Your task to perform on an android device: Search for seafood restaurants on Google Maps Image 0: 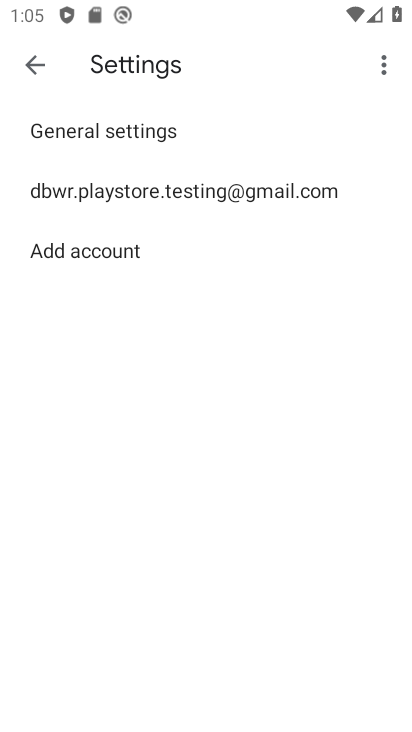
Step 0: press home button
Your task to perform on an android device: Search for seafood restaurants on Google Maps Image 1: 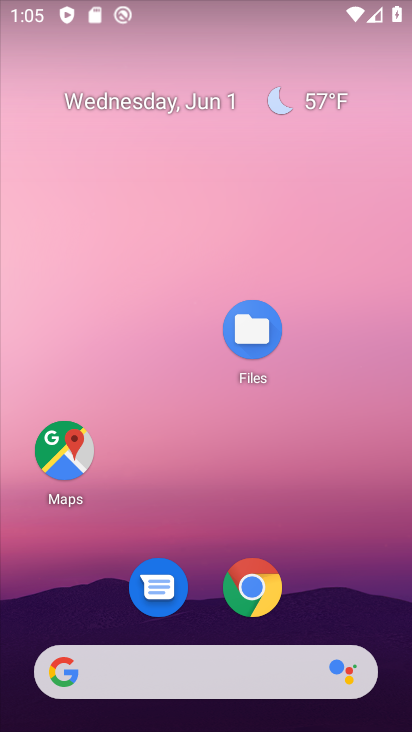
Step 1: click (80, 448)
Your task to perform on an android device: Search for seafood restaurants on Google Maps Image 2: 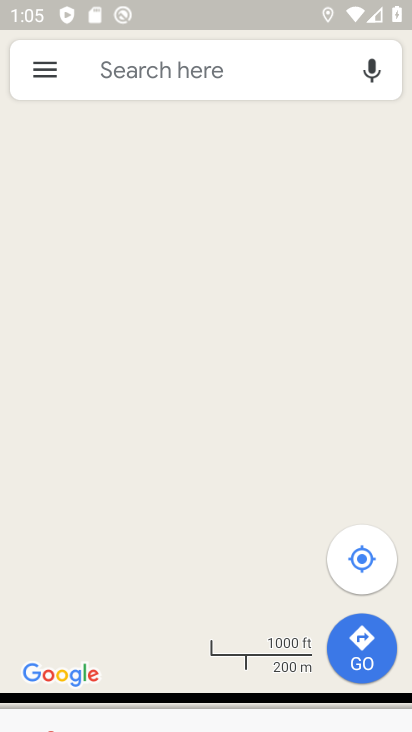
Step 2: click (185, 64)
Your task to perform on an android device: Search for seafood restaurants on Google Maps Image 3: 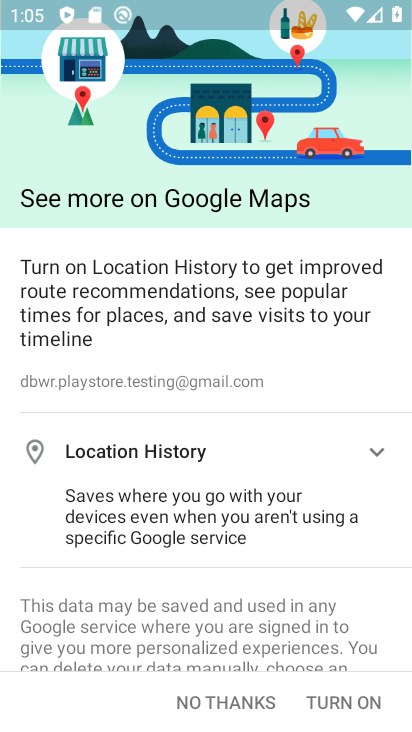
Step 3: type " seafood restaurants "
Your task to perform on an android device: Search for seafood restaurants on Google Maps Image 4: 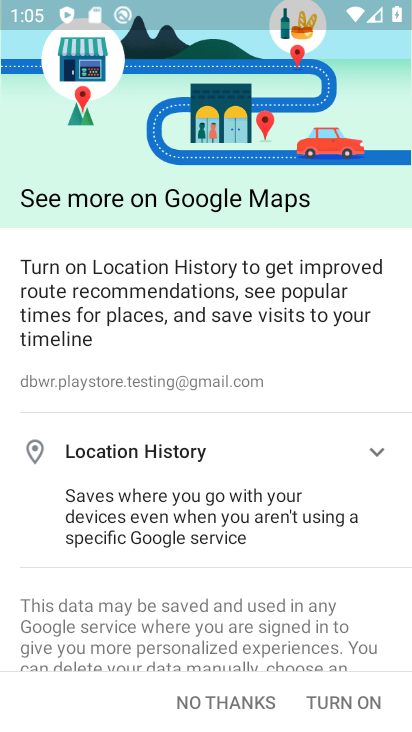
Step 4: click (214, 713)
Your task to perform on an android device: Search for seafood restaurants on Google Maps Image 5: 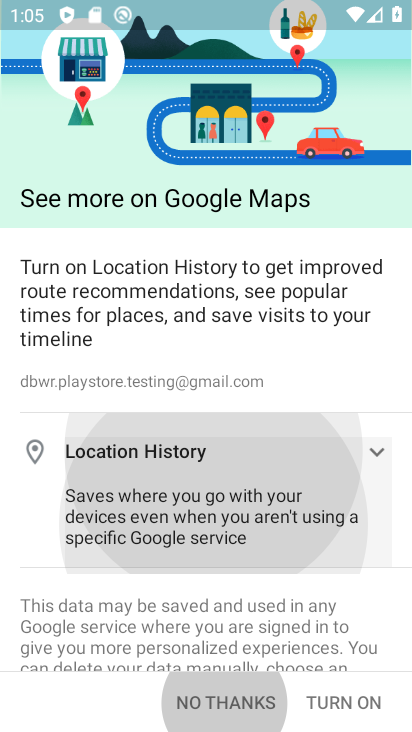
Step 5: click (214, 713)
Your task to perform on an android device: Search for seafood restaurants on Google Maps Image 6: 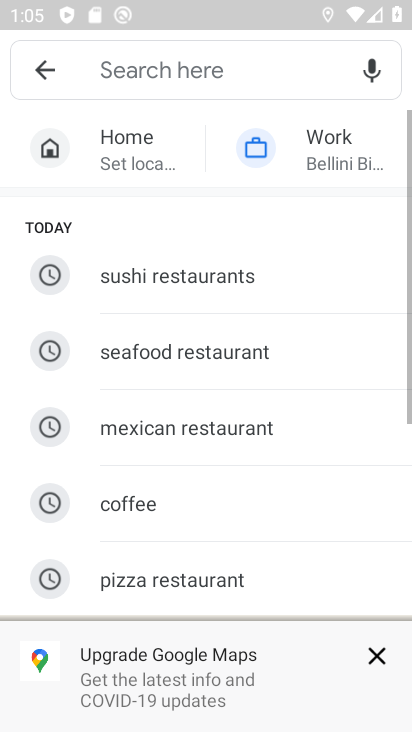
Step 6: click (133, 74)
Your task to perform on an android device: Search for seafood restaurants on Google Maps Image 7: 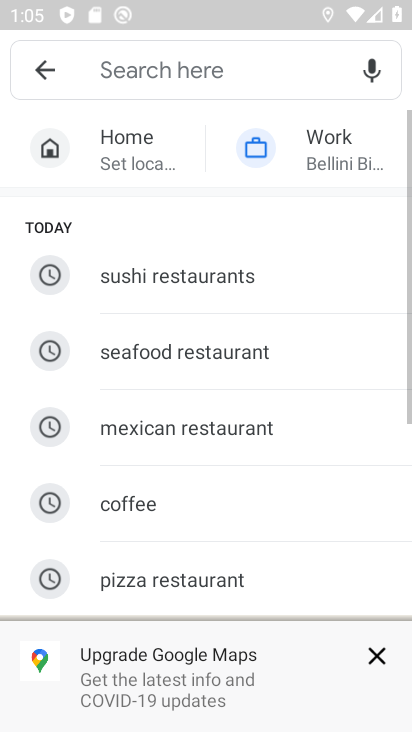
Step 7: click (133, 74)
Your task to perform on an android device: Search for seafood restaurants on Google Maps Image 8: 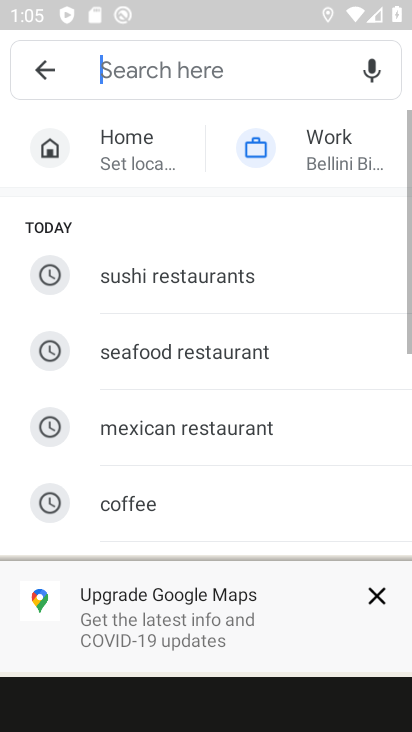
Step 8: click (133, 74)
Your task to perform on an android device: Search for seafood restaurants on Google Maps Image 9: 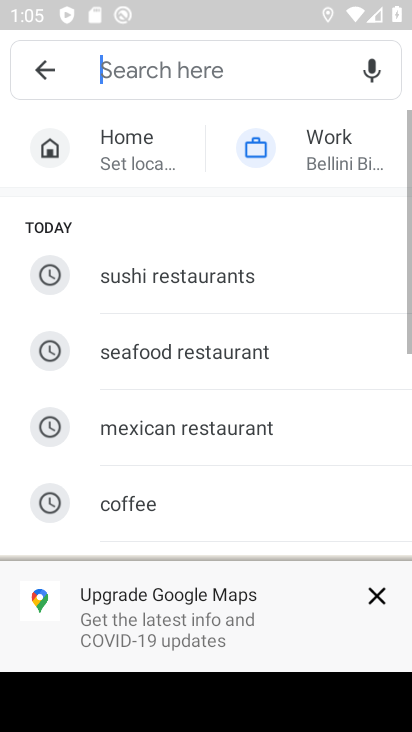
Step 9: click (133, 74)
Your task to perform on an android device: Search for seafood restaurants on Google Maps Image 10: 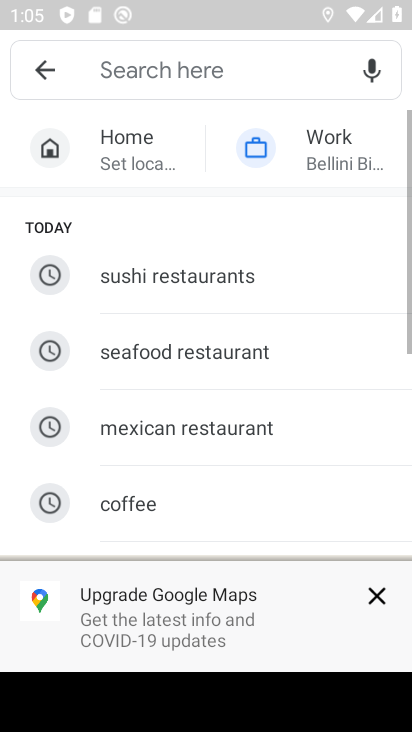
Step 10: click (133, 74)
Your task to perform on an android device: Search for seafood restaurants on Google Maps Image 11: 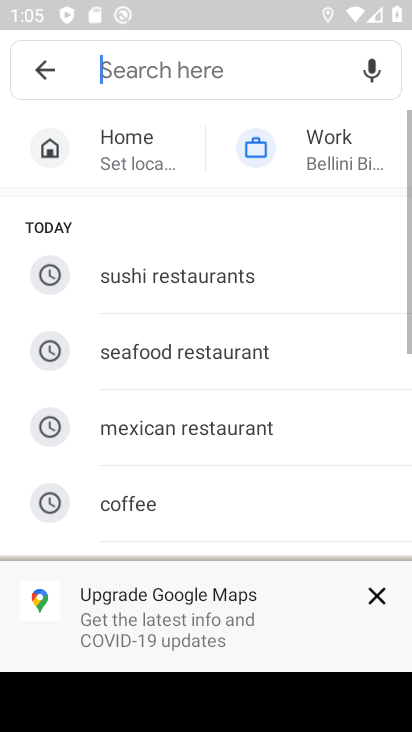
Step 11: click (133, 74)
Your task to perform on an android device: Search for seafood restaurants on Google Maps Image 12: 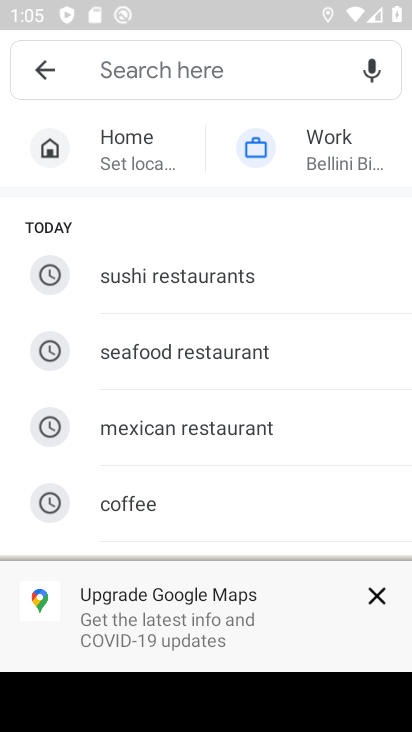
Step 12: type " seafood restaurants "
Your task to perform on an android device: Search for seafood restaurants on Google Maps Image 13: 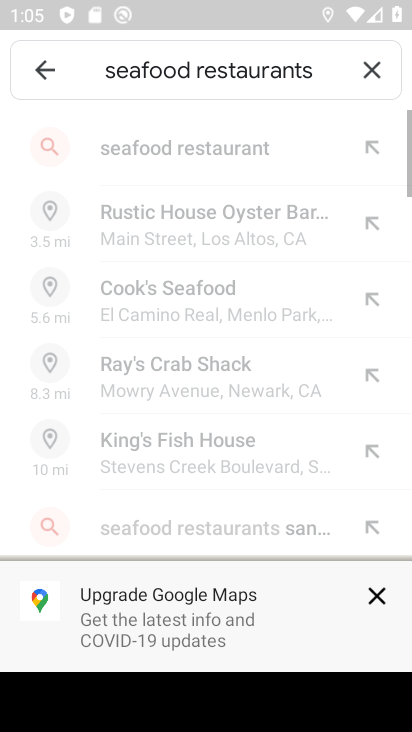
Step 13: click (298, 155)
Your task to perform on an android device: Search for seafood restaurants on Google Maps Image 14: 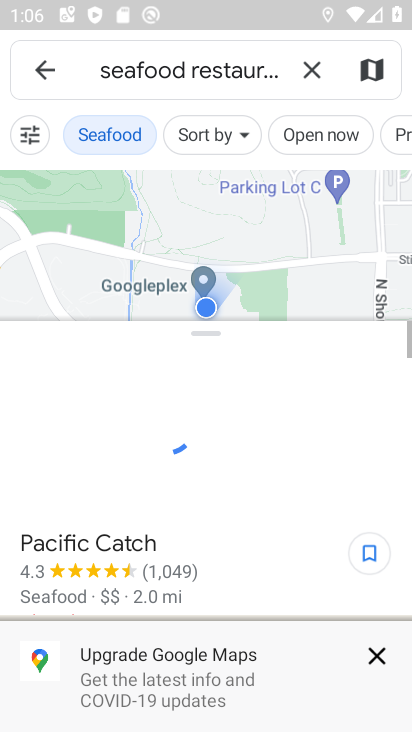
Step 14: task complete